Your task to perform on an android device: Open the calendar app, open the side menu, and click the "Day" option Image 0: 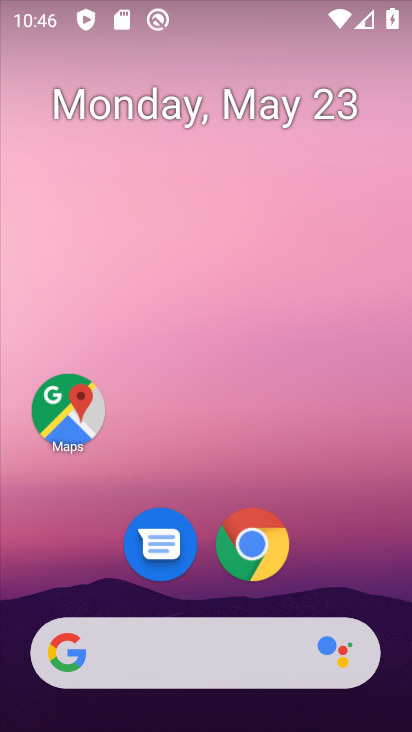
Step 0: drag from (385, 623) to (300, 104)
Your task to perform on an android device: Open the calendar app, open the side menu, and click the "Day" option Image 1: 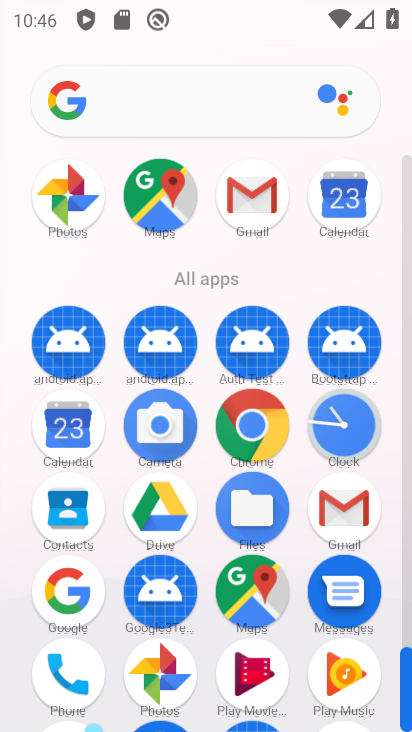
Step 1: click (407, 634)
Your task to perform on an android device: Open the calendar app, open the side menu, and click the "Day" option Image 2: 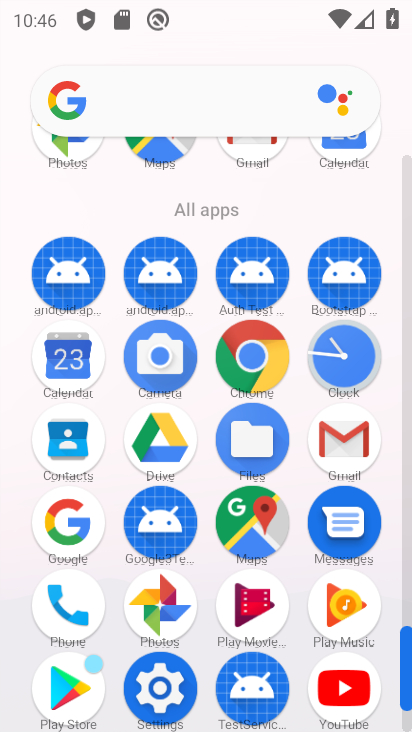
Step 2: click (68, 356)
Your task to perform on an android device: Open the calendar app, open the side menu, and click the "Day" option Image 3: 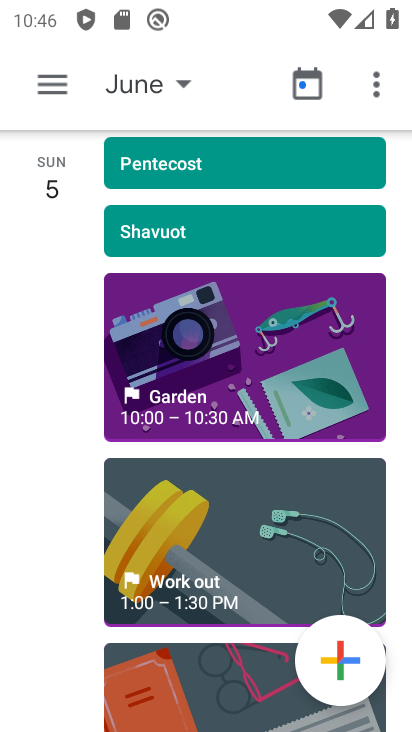
Step 3: click (51, 84)
Your task to perform on an android device: Open the calendar app, open the side menu, and click the "Day" option Image 4: 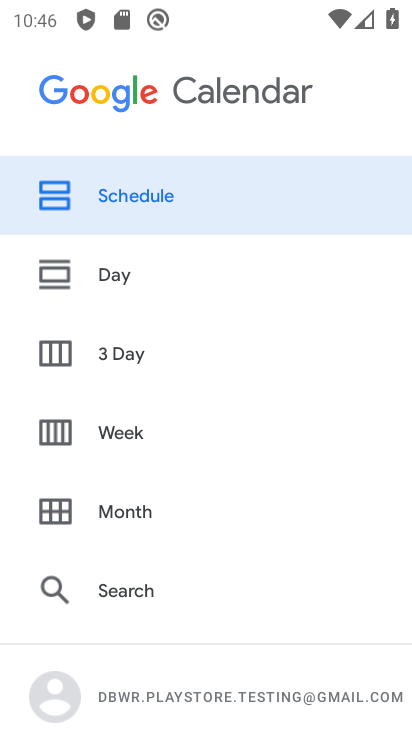
Step 4: click (109, 273)
Your task to perform on an android device: Open the calendar app, open the side menu, and click the "Day" option Image 5: 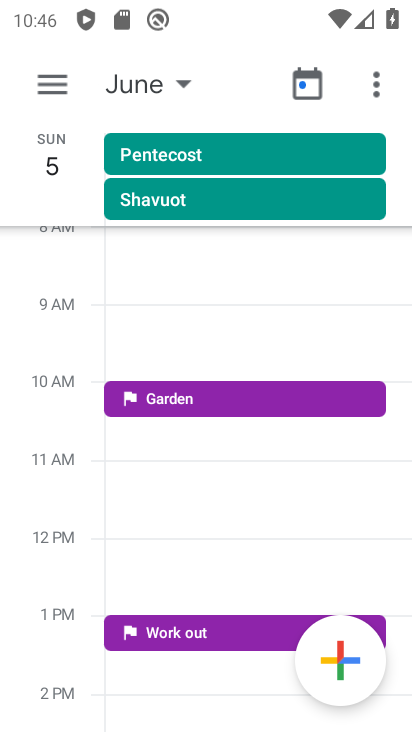
Step 5: task complete